Your task to perform on an android device: toggle wifi Image 0: 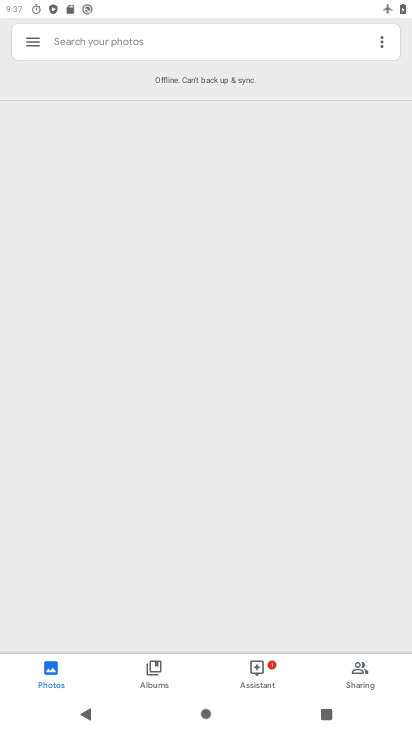
Step 0: press home button
Your task to perform on an android device: toggle wifi Image 1: 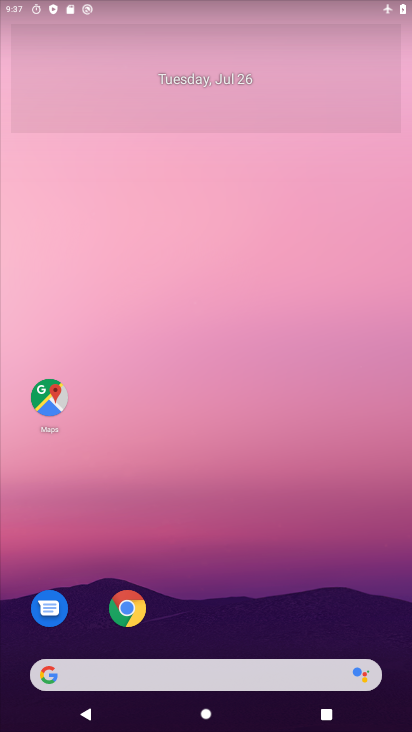
Step 1: drag from (219, 635) to (187, 236)
Your task to perform on an android device: toggle wifi Image 2: 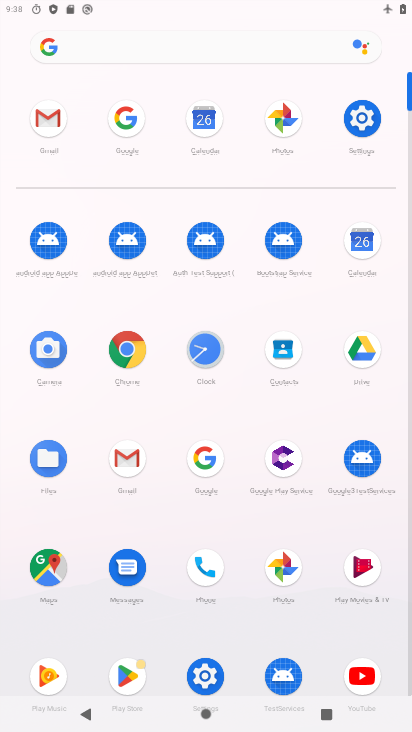
Step 2: click (366, 139)
Your task to perform on an android device: toggle wifi Image 3: 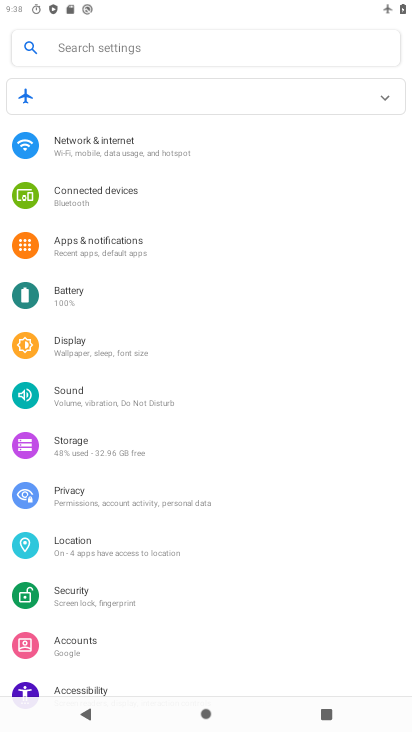
Step 3: click (91, 133)
Your task to perform on an android device: toggle wifi Image 4: 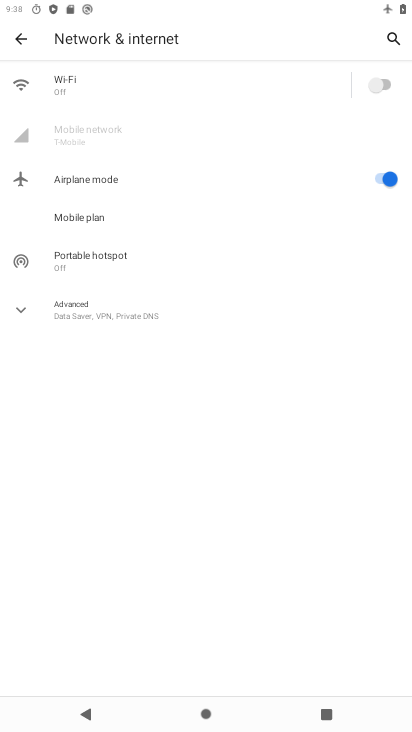
Step 4: click (388, 92)
Your task to perform on an android device: toggle wifi Image 5: 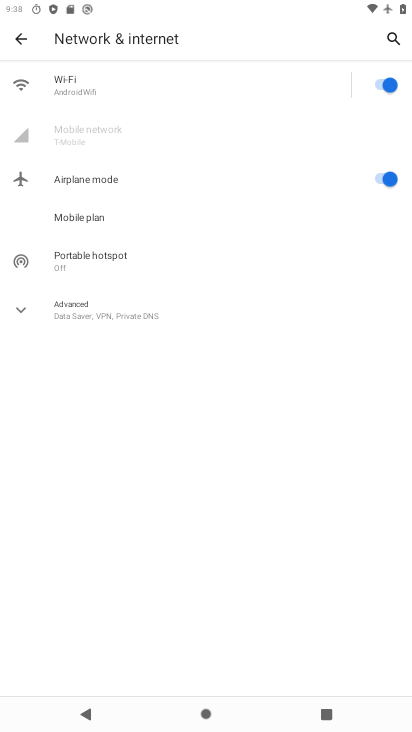
Step 5: task complete